Your task to perform on an android device: toggle wifi Image 0: 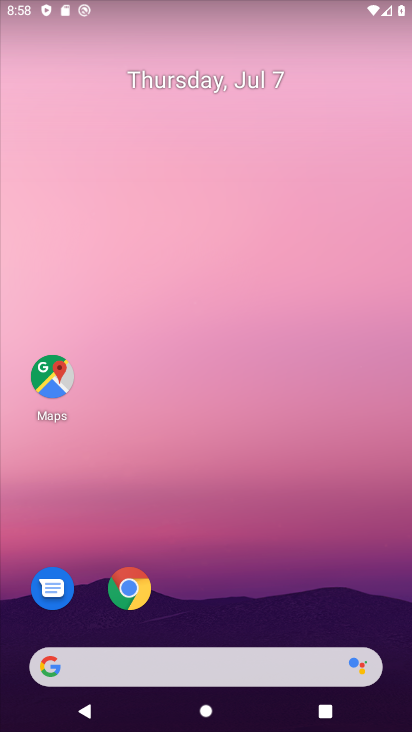
Step 0: drag from (302, 589) to (300, 223)
Your task to perform on an android device: toggle wifi Image 1: 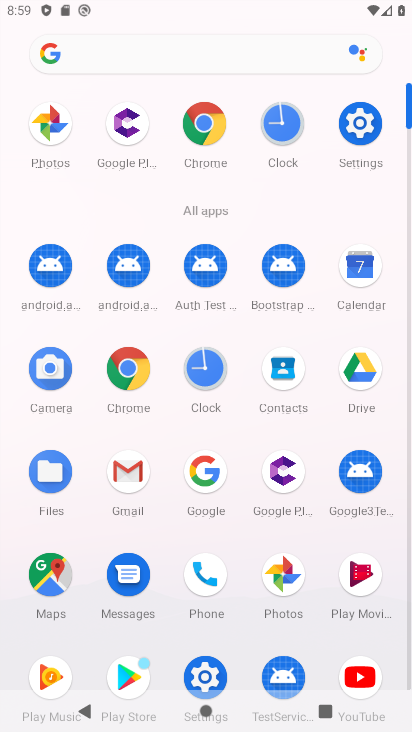
Step 1: click (353, 127)
Your task to perform on an android device: toggle wifi Image 2: 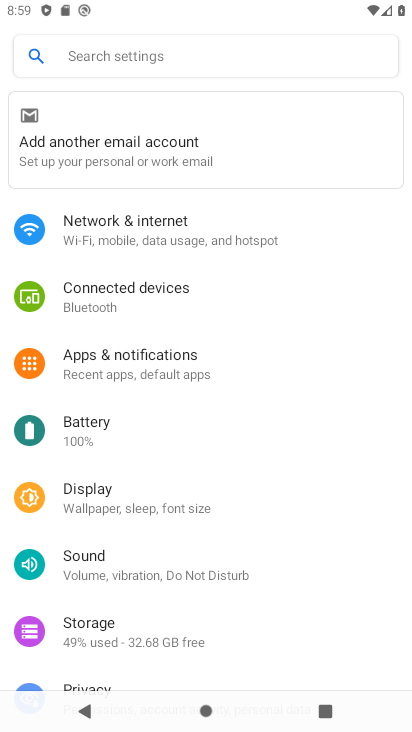
Step 2: click (145, 235)
Your task to perform on an android device: toggle wifi Image 3: 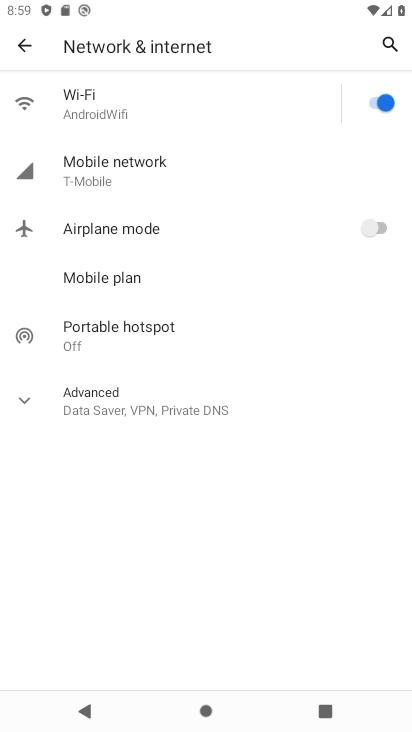
Step 3: click (381, 115)
Your task to perform on an android device: toggle wifi Image 4: 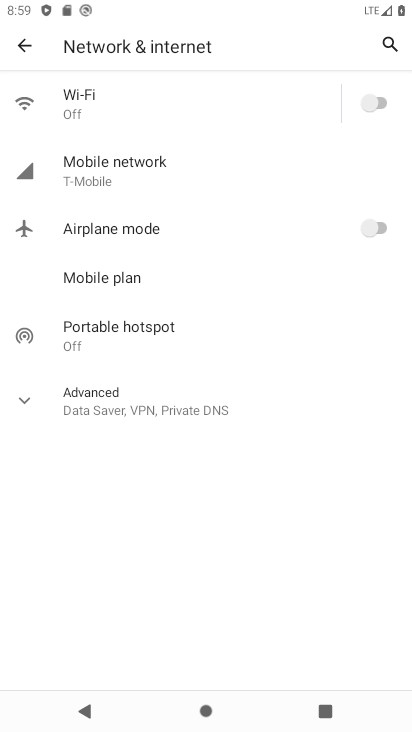
Step 4: task complete